Your task to perform on an android device: turn pop-ups off in chrome Image 0: 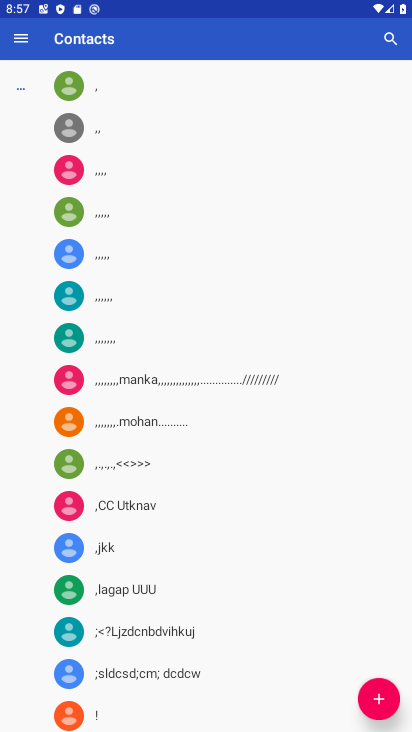
Step 0: press home button
Your task to perform on an android device: turn pop-ups off in chrome Image 1: 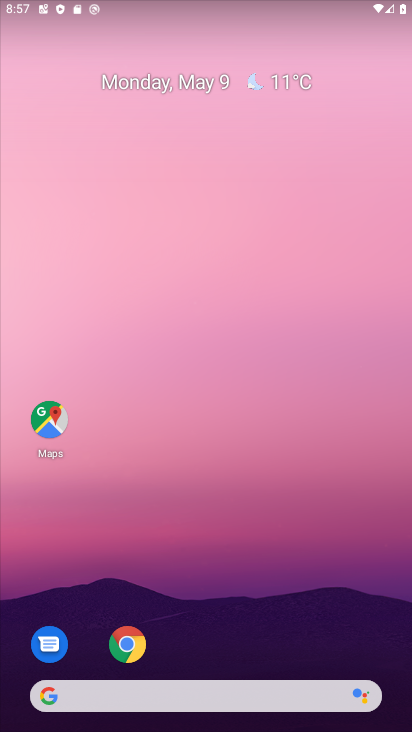
Step 1: click (115, 646)
Your task to perform on an android device: turn pop-ups off in chrome Image 2: 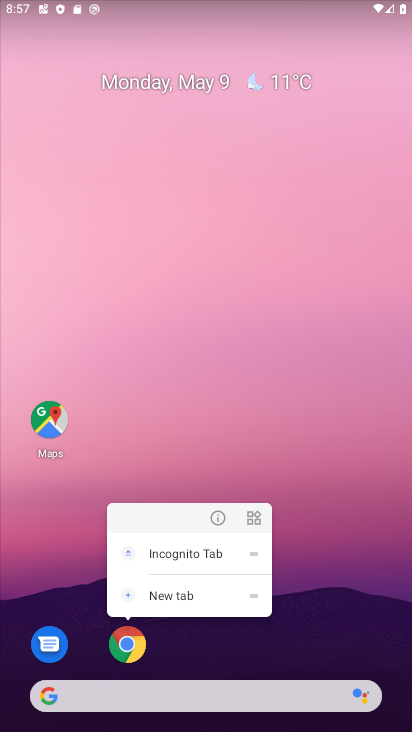
Step 2: click (118, 644)
Your task to perform on an android device: turn pop-ups off in chrome Image 3: 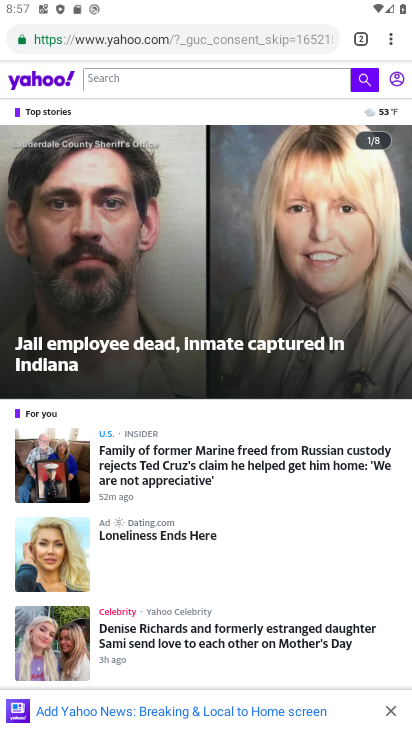
Step 3: click (392, 42)
Your task to perform on an android device: turn pop-ups off in chrome Image 4: 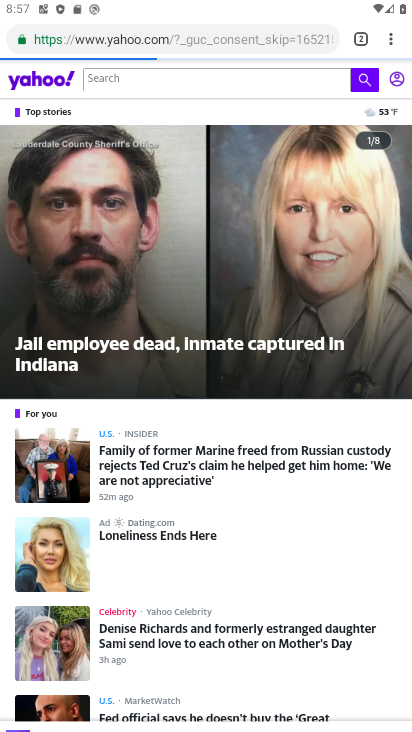
Step 4: click (385, 44)
Your task to perform on an android device: turn pop-ups off in chrome Image 5: 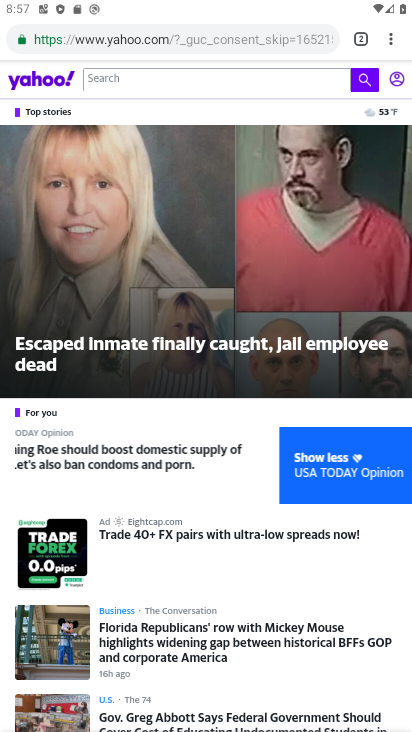
Step 5: drag from (395, 42) to (255, 435)
Your task to perform on an android device: turn pop-ups off in chrome Image 6: 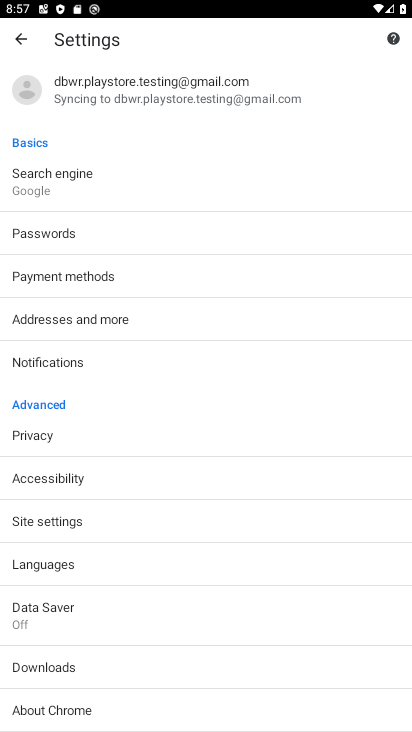
Step 6: drag from (71, 615) to (67, 422)
Your task to perform on an android device: turn pop-ups off in chrome Image 7: 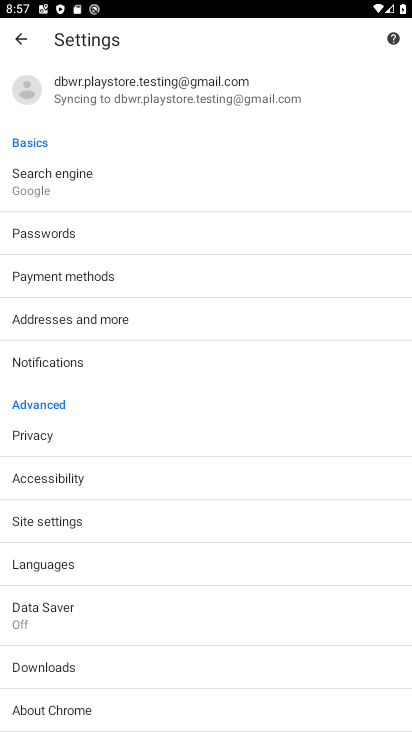
Step 7: click (55, 525)
Your task to perform on an android device: turn pop-ups off in chrome Image 8: 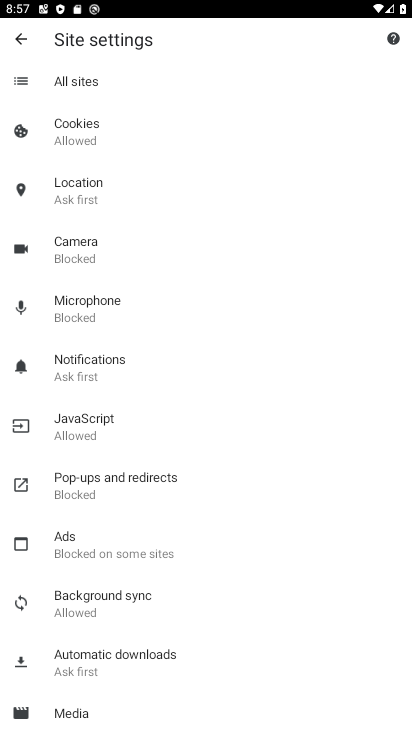
Step 8: click (85, 497)
Your task to perform on an android device: turn pop-ups off in chrome Image 9: 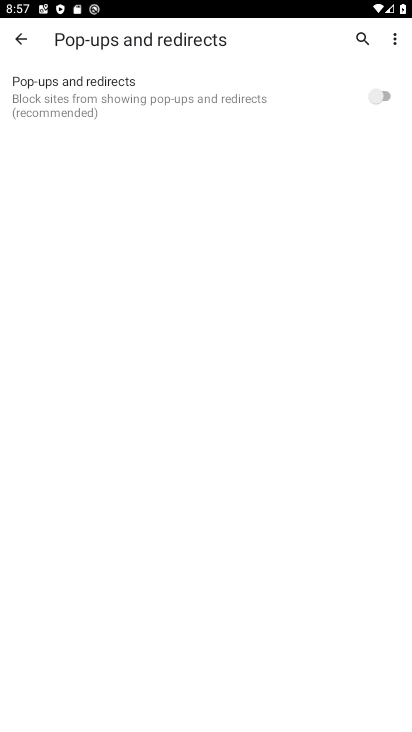
Step 9: task complete